Your task to perform on an android device: Open the Play Movies app and select the watchlist tab. Image 0: 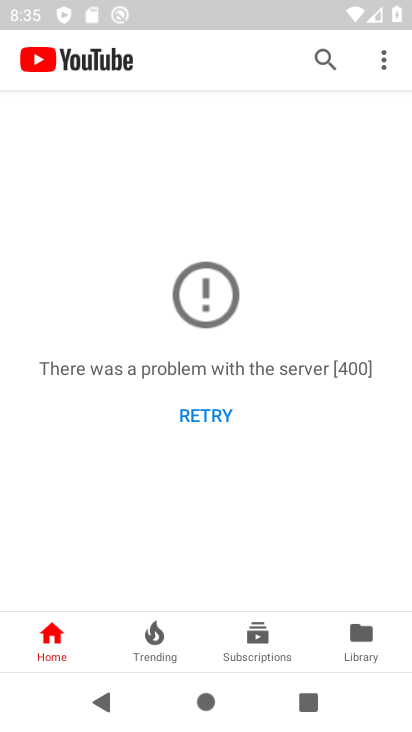
Step 0: press home button
Your task to perform on an android device: Open the Play Movies app and select the watchlist tab. Image 1: 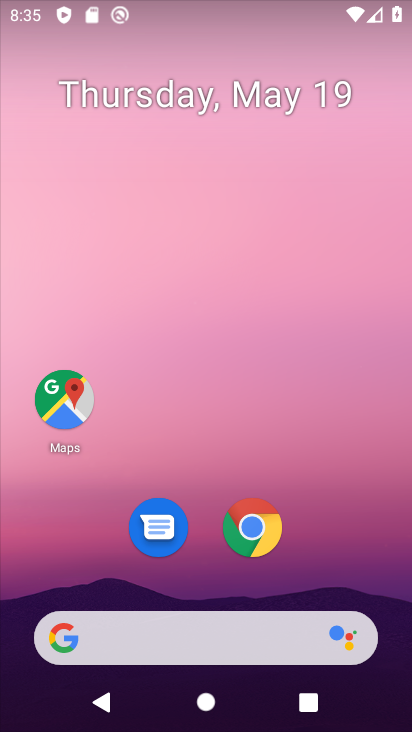
Step 1: drag from (385, 646) to (334, 243)
Your task to perform on an android device: Open the Play Movies app and select the watchlist tab. Image 2: 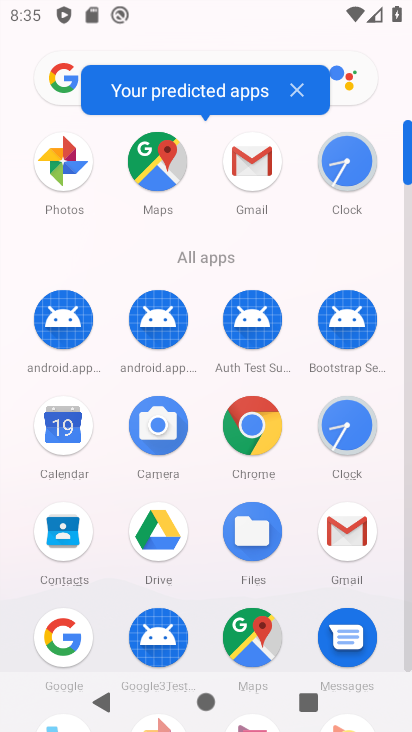
Step 2: drag from (408, 119) to (405, 72)
Your task to perform on an android device: Open the Play Movies app and select the watchlist tab. Image 3: 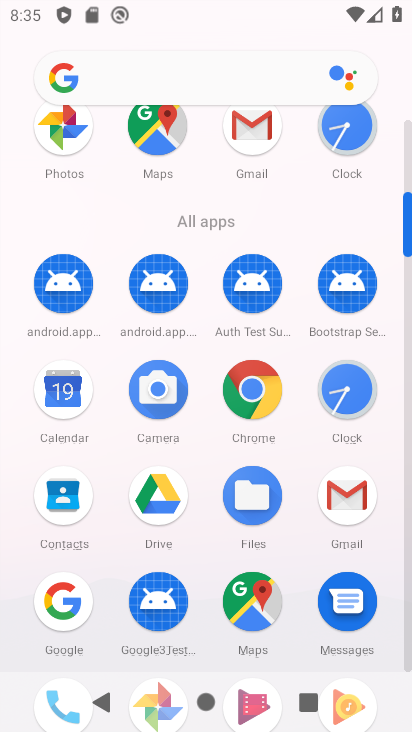
Step 3: drag from (407, 199) to (408, 142)
Your task to perform on an android device: Open the Play Movies app and select the watchlist tab. Image 4: 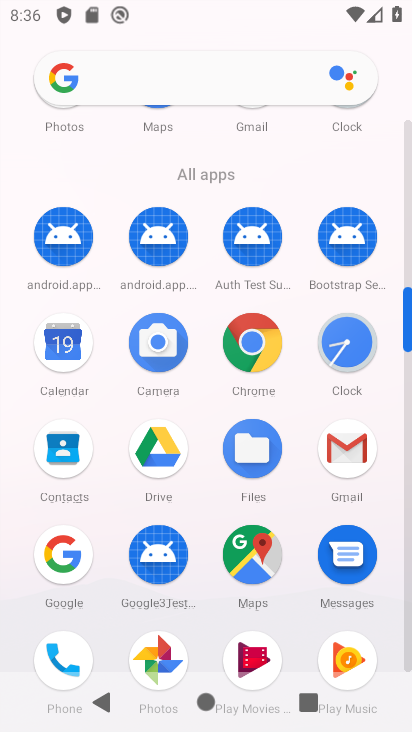
Step 4: click (266, 651)
Your task to perform on an android device: Open the Play Movies app and select the watchlist tab. Image 5: 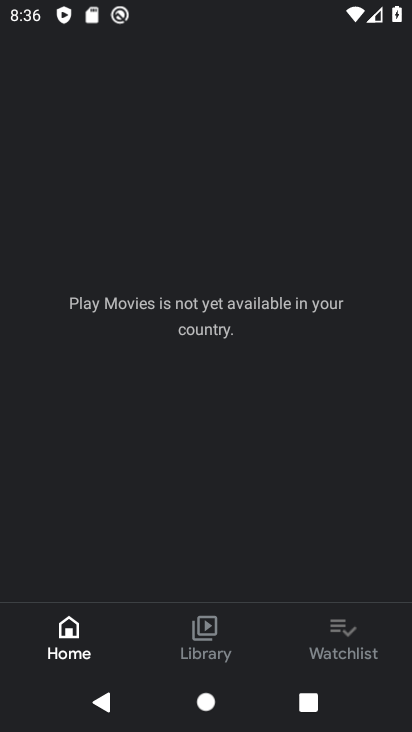
Step 5: click (342, 650)
Your task to perform on an android device: Open the Play Movies app and select the watchlist tab. Image 6: 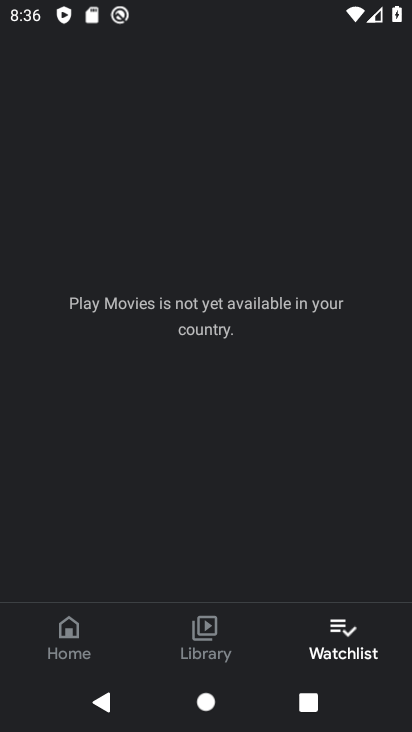
Step 6: task complete